Your task to perform on an android device: turn on improve location accuracy Image 0: 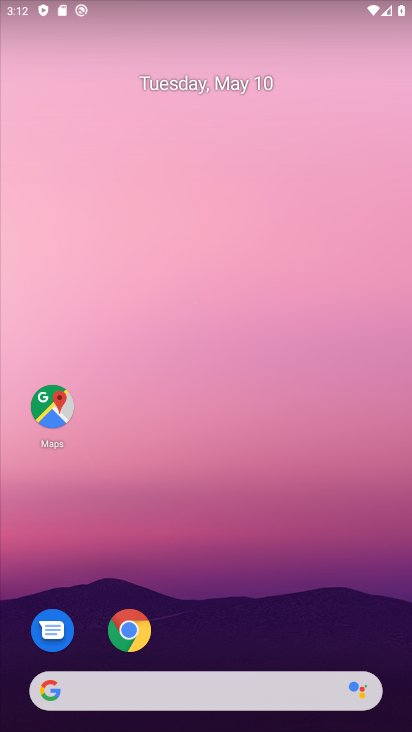
Step 0: drag from (202, 656) to (297, 54)
Your task to perform on an android device: turn on improve location accuracy Image 1: 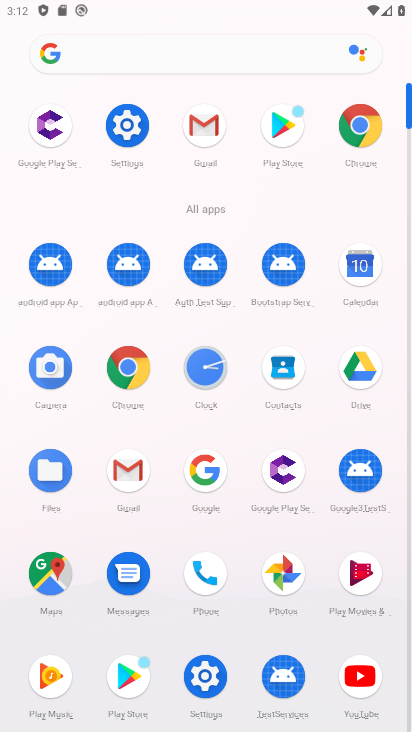
Step 1: click (220, 668)
Your task to perform on an android device: turn on improve location accuracy Image 2: 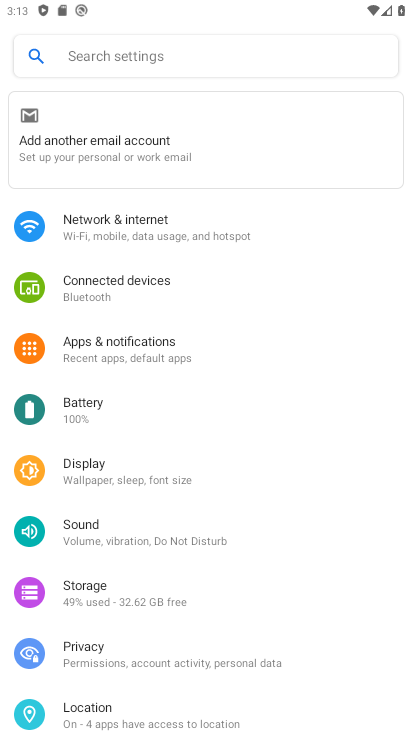
Step 2: click (71, 708)
Your task to perform on an android device: turn on improve location accuracy Image 3: 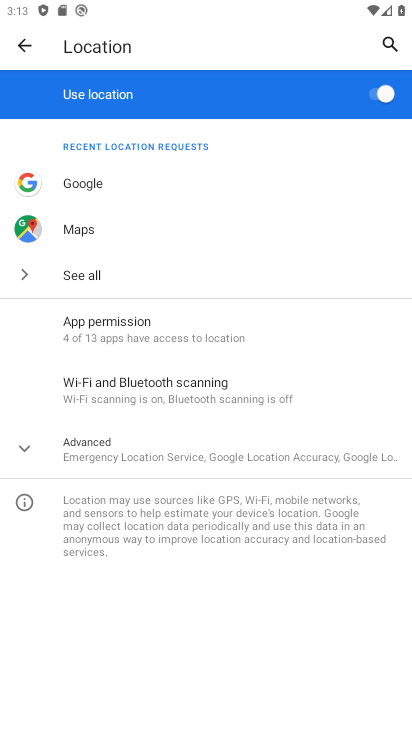
Step 3: click (110, 447)
Your task to perform on an android device: turn on improve location accuracy Image 4: 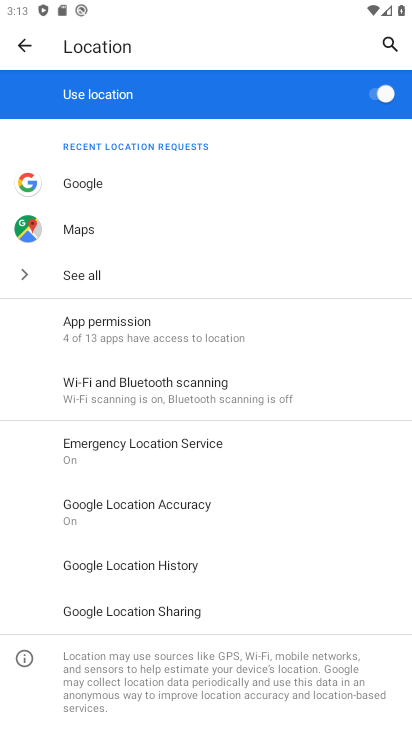
Step 4: click (249, 523)
Your task to perform on an android device: turn on improve location accuracy Image 5: 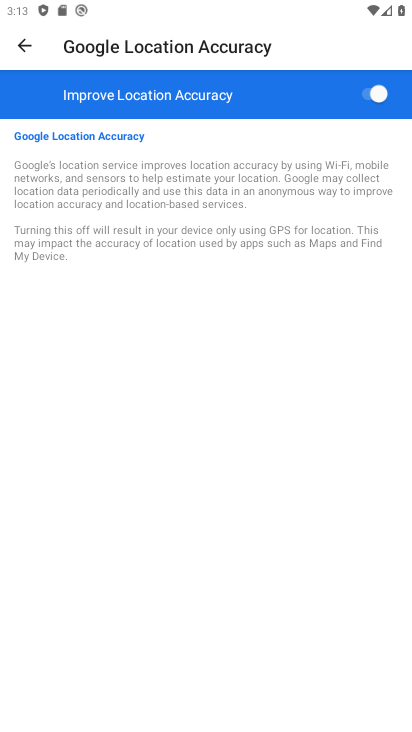
Step 5: task complete